Your task to perform on an android device: turn off improve location accuracy Image 0: 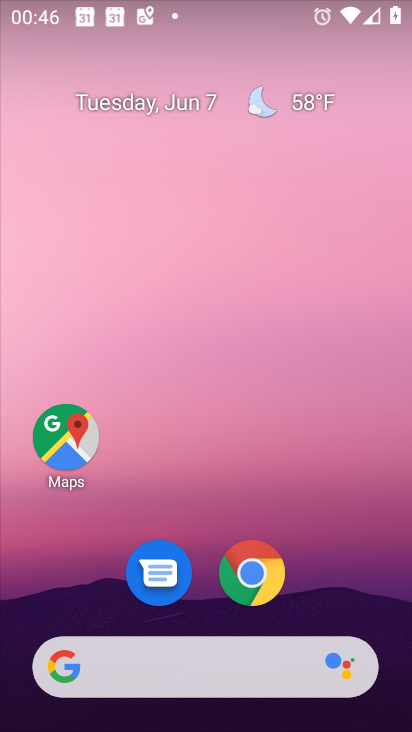
Step 0: press home button
Your task to perform on an android device: turn off improve location accuracy Image 1: 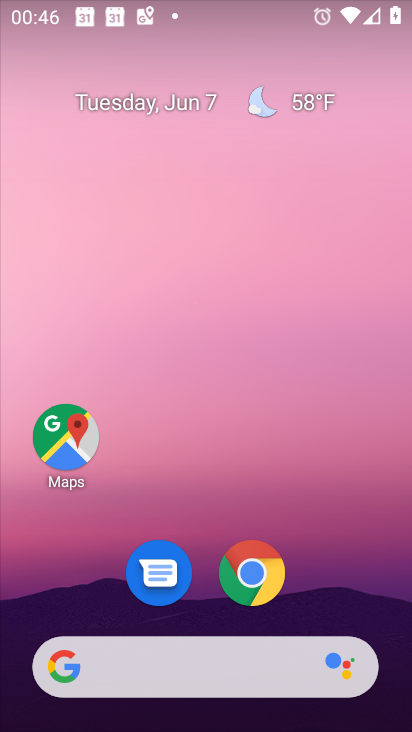
Step 1: click (405, 117)
Your task to perform on an android device: turn off improve location accuracy Image 2: 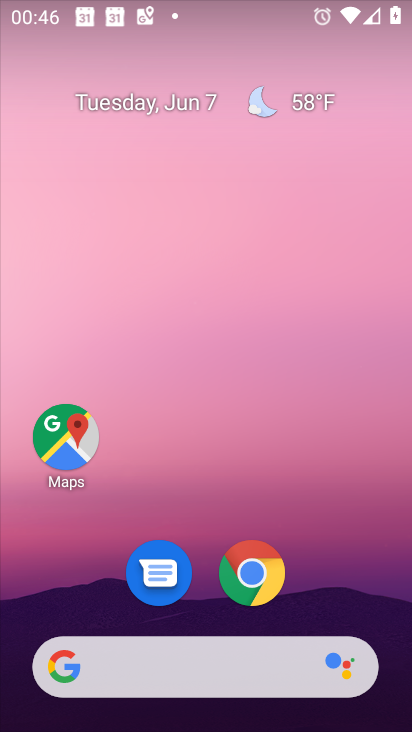
Step 2: drag from (300, 644) to (325, 7)
Your task to perform on an android device: turn off improve location accuracy Image 3: 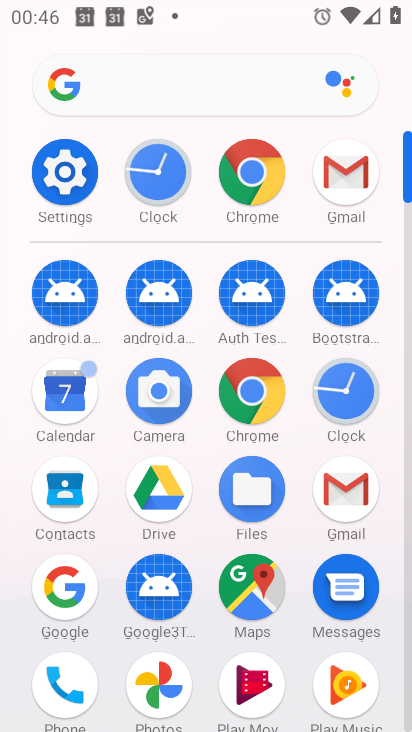
Step 3: click (29, 180)
Your task to perform on an android device: turn off improve location accuracy Image 4: 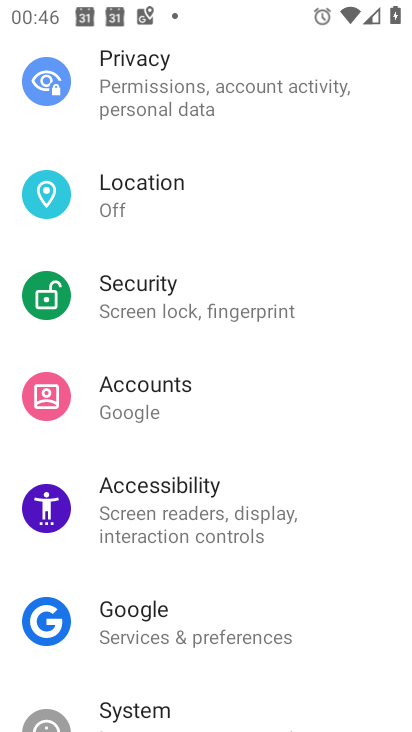
Step 4: drag from (188, 212) to (164, 724)
Your task to perform on an android device: turn off improve location accuracy Image 5: 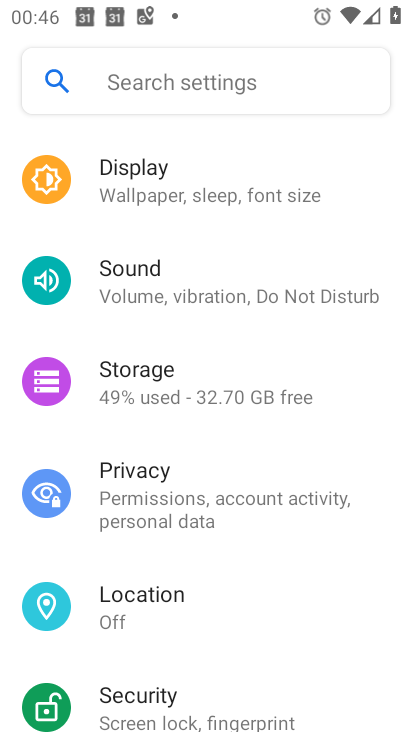
Step 5: click (155, 617)
Your task to perform on an android device: turn off improve location accuracy Image 6: 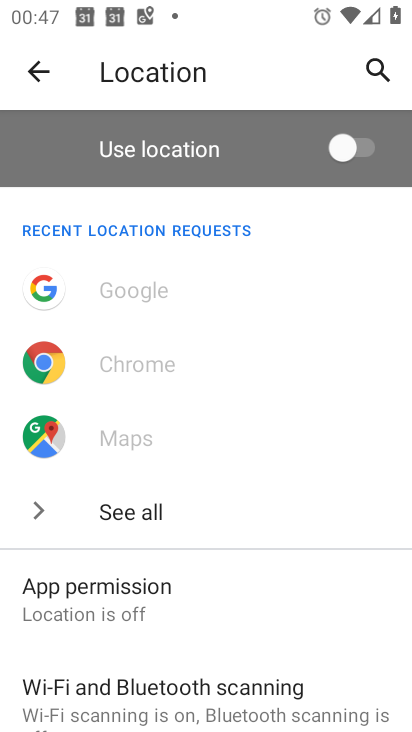
Step 6: drag from (293, 698) to (284, 43)
Your task to perform on an android device: turn off improve location accuracy Image 7: 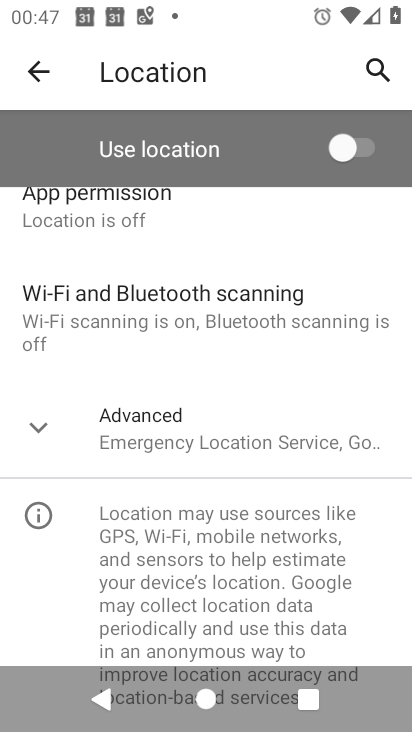
Step 7: click (189, 425)
Your task to perform on an android device: turn off improve location accuracy Image 8: 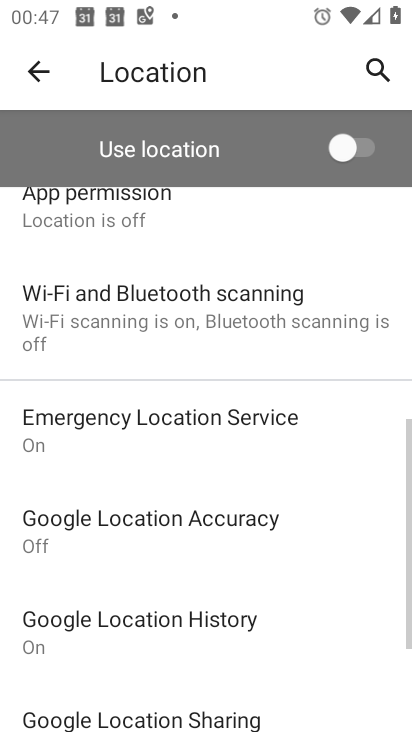
Step 8: click (221, 541)
Your task to perform on an android device: turn off improve location accuracy Image 9: 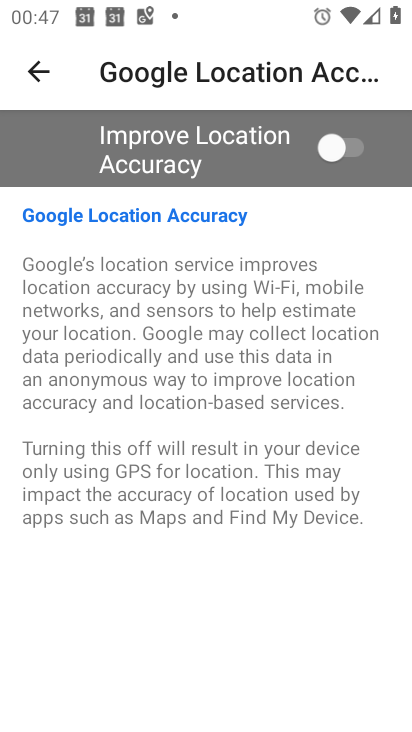
Step 9: task complete